Your task to perform on an android device: Open battery settings Image 0: 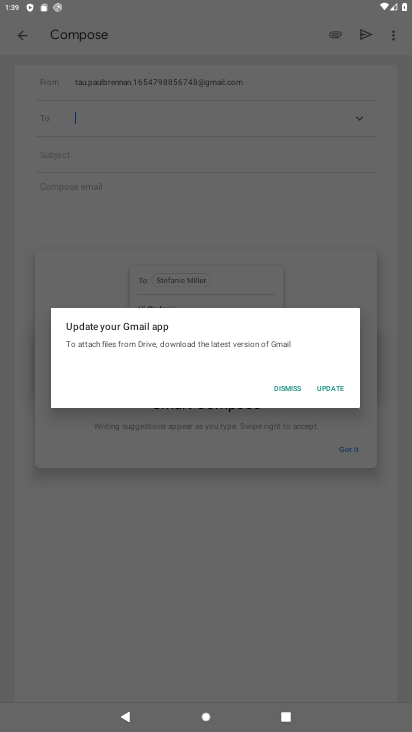
Step 0: press home button
Your task to perform on an android device: Open battery settings Image 1: 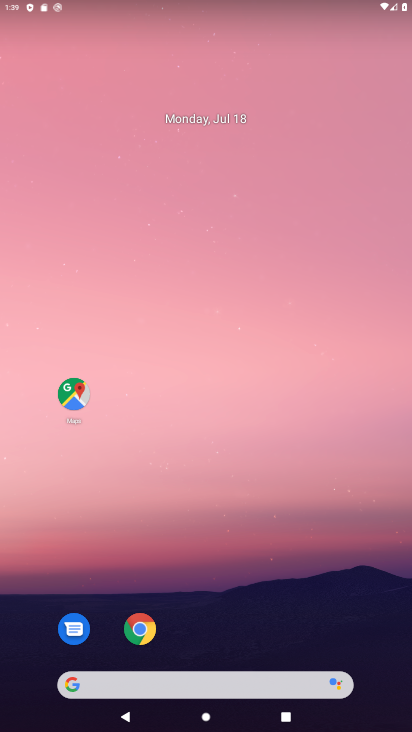
Step 1: drag from (262, 664) to (218, 51)
Your task to perform on an android device: Open battery settings Image 2: 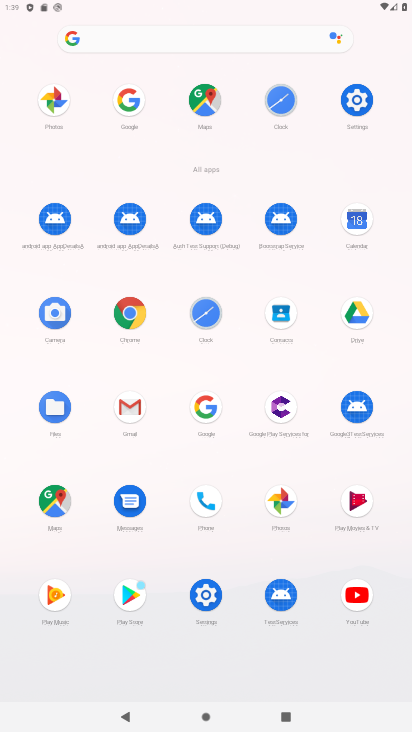
Step 2: click (352, 101)
Your task to perform on an android device: Open battery settings Image 3: 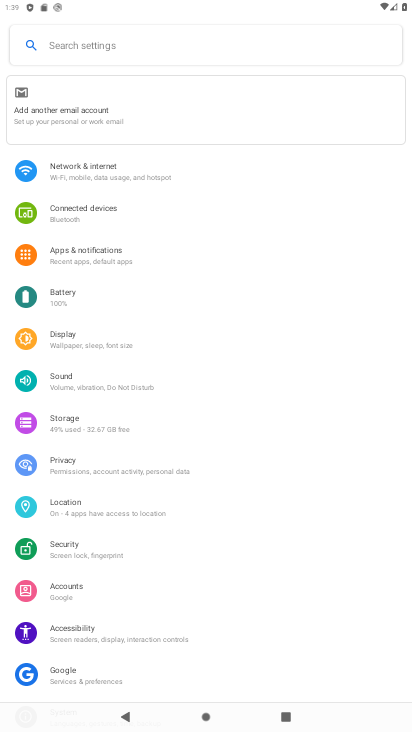
Step 3: click (78, 304)
Your task to perform on an android device: Open battery settings Image 4: 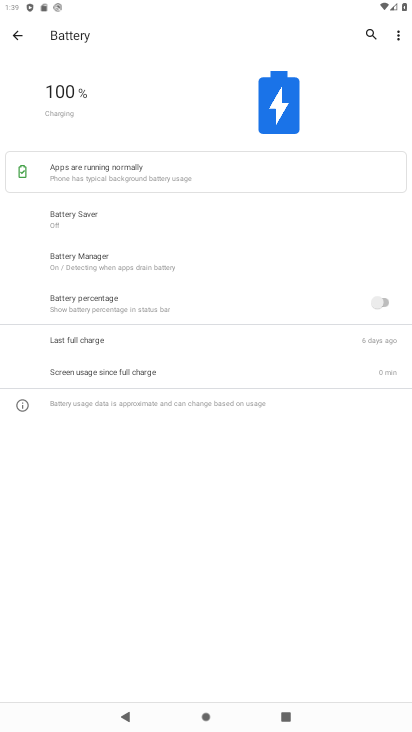
Step 4: task complete